Your task to perform on an android device: Open my contact list Image 0: 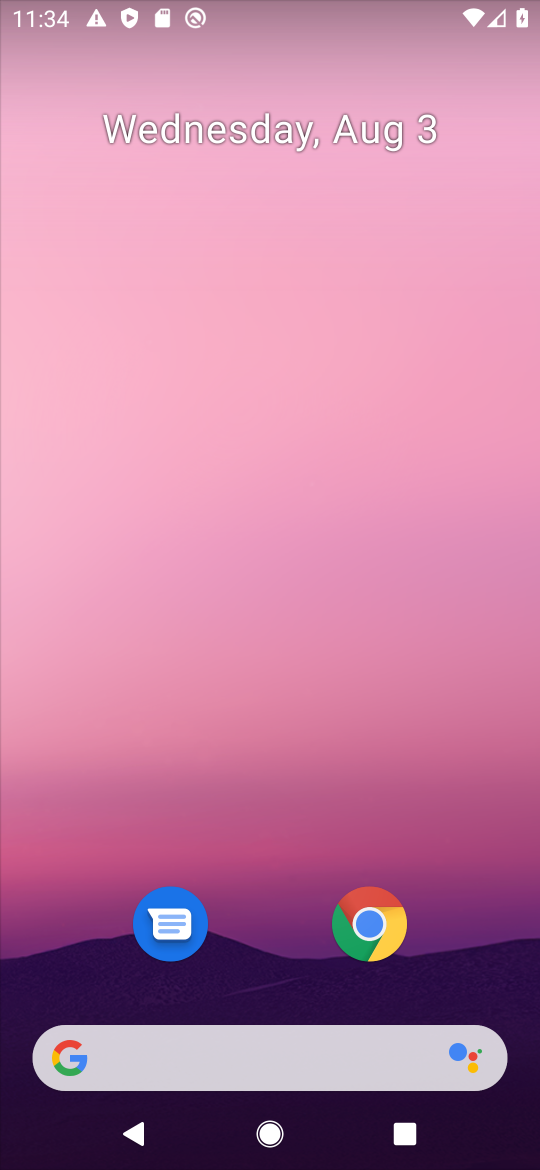
Step 0: drag from (303, 460) to (376, 90)
Your task to perform on an android device: Open my contact list Image 1: 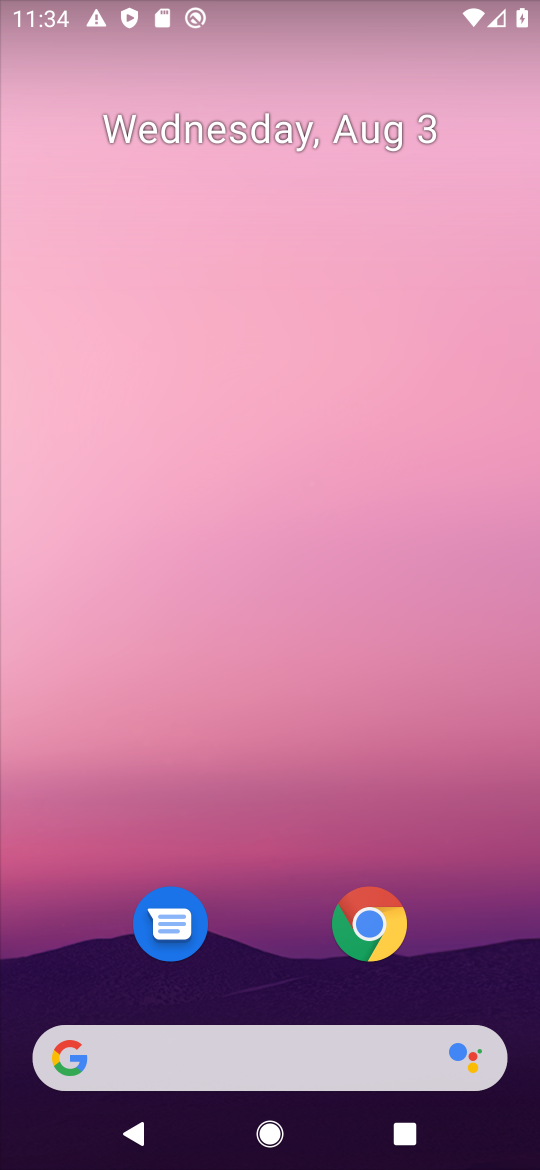
Step 1: drag from (64, 1110) to (367, 140)
Your task to perform on an android device: Open my contact list Image 2: 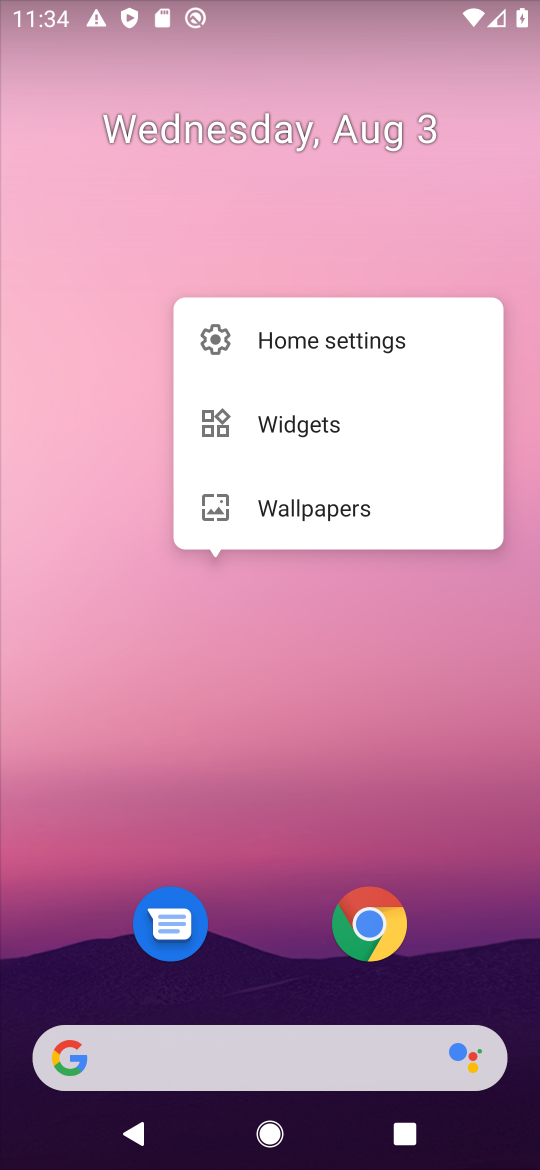
Step 2: drag from (152, 886) to (330, 0)
Your task to perform on an android device: Open my contact list Image 3: 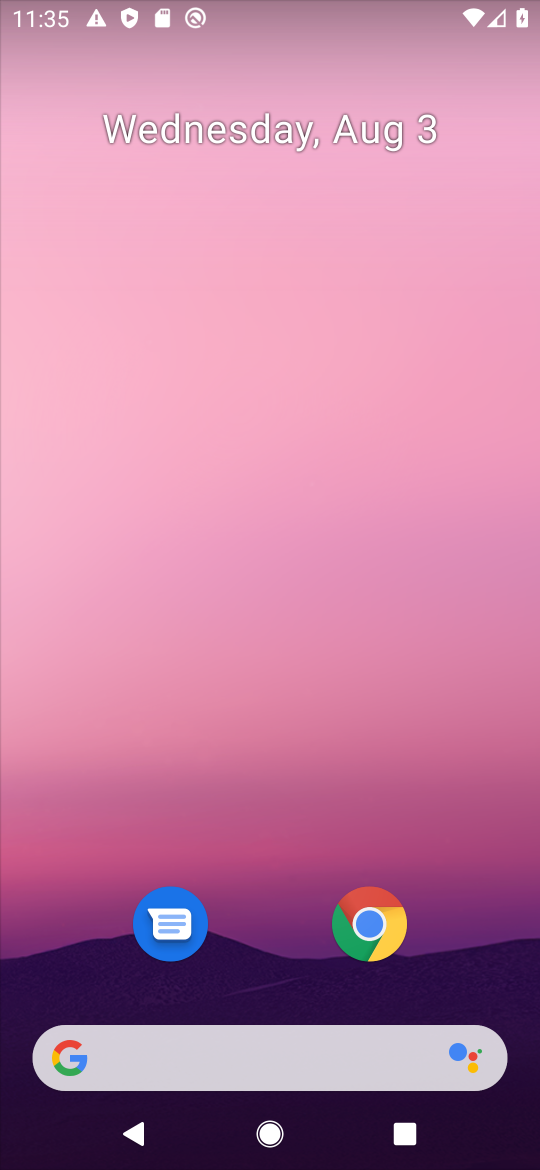
Step 3: drag from (88, 1057) to (400, 113)
Your task to perform on an android device: Open my contact list Image 4: 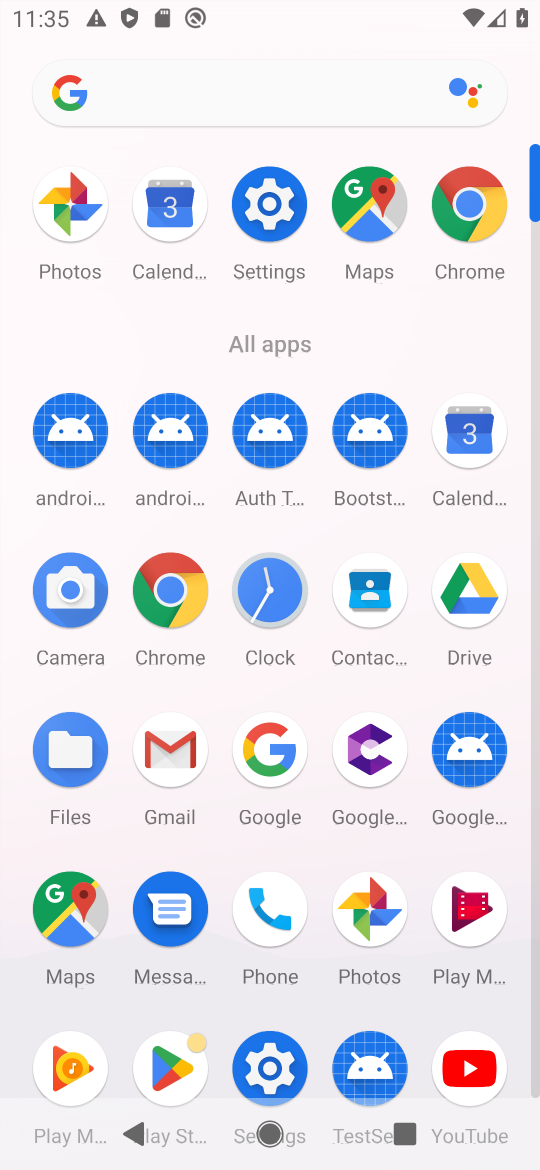
Step 4: click (260, 906)
Your task to perform on an android device: Open my contact list Image 5: 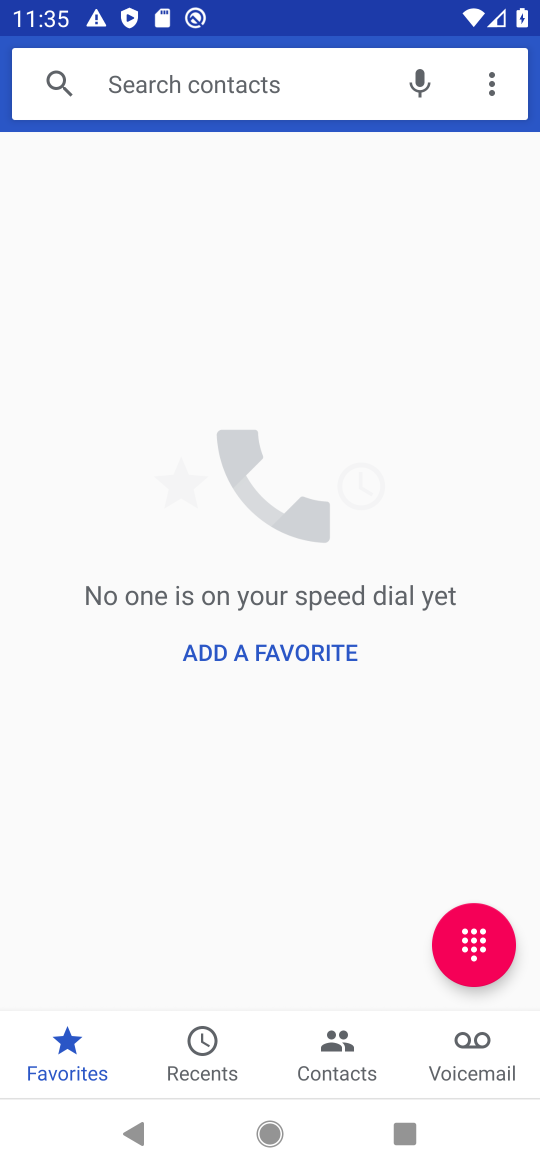
Step 5: click (327, 1070)
Your task to perform on an android device: Open my contact list Image 6: 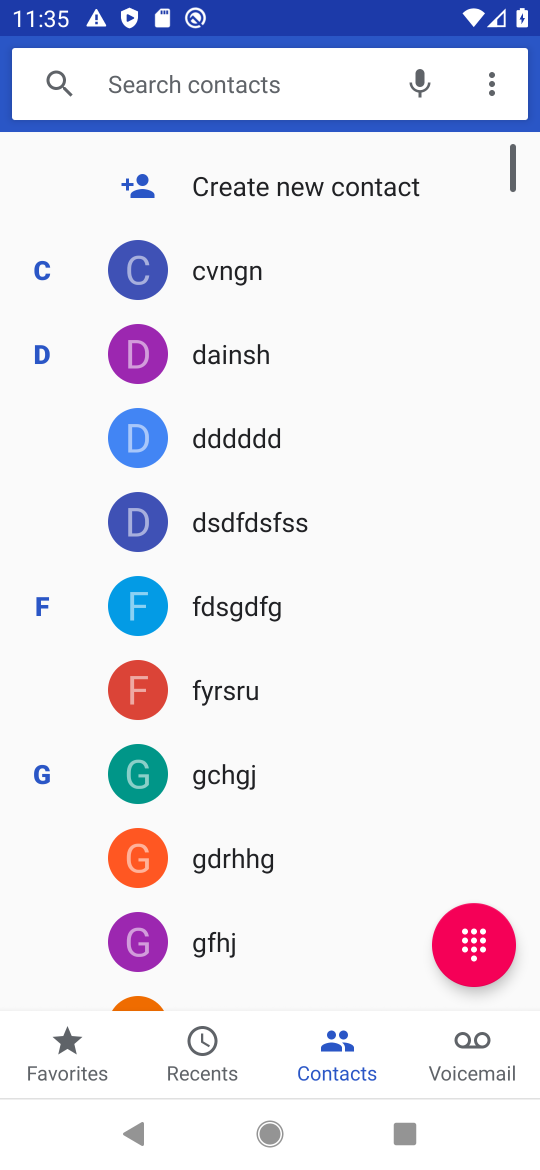
Step 6: click (341, 181)
Your task to perform on an android device: Open my contact list Image 7: 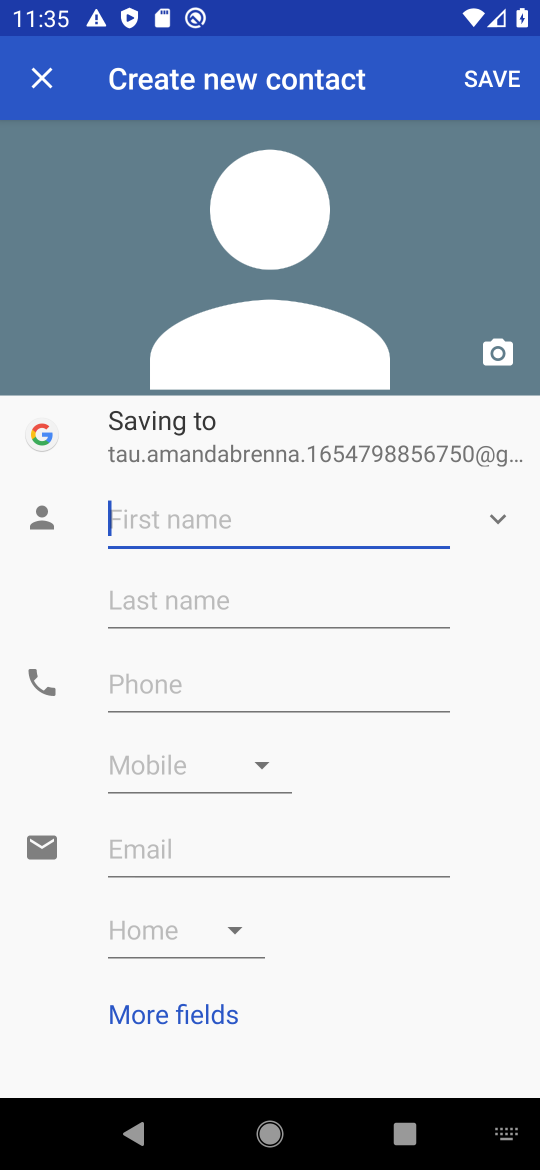
Step 7: type "xdhdfb"
Your task to perform on an android device: Open my contact list Image 8: 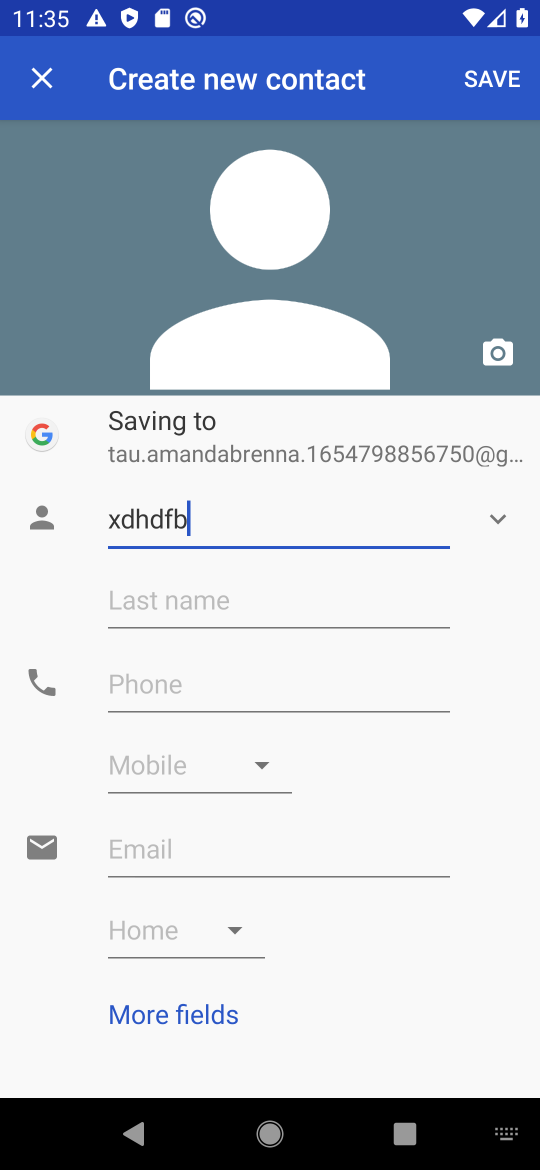
Step 8: type ""
Your task to perform on an android device: Open my contact list Image 9: 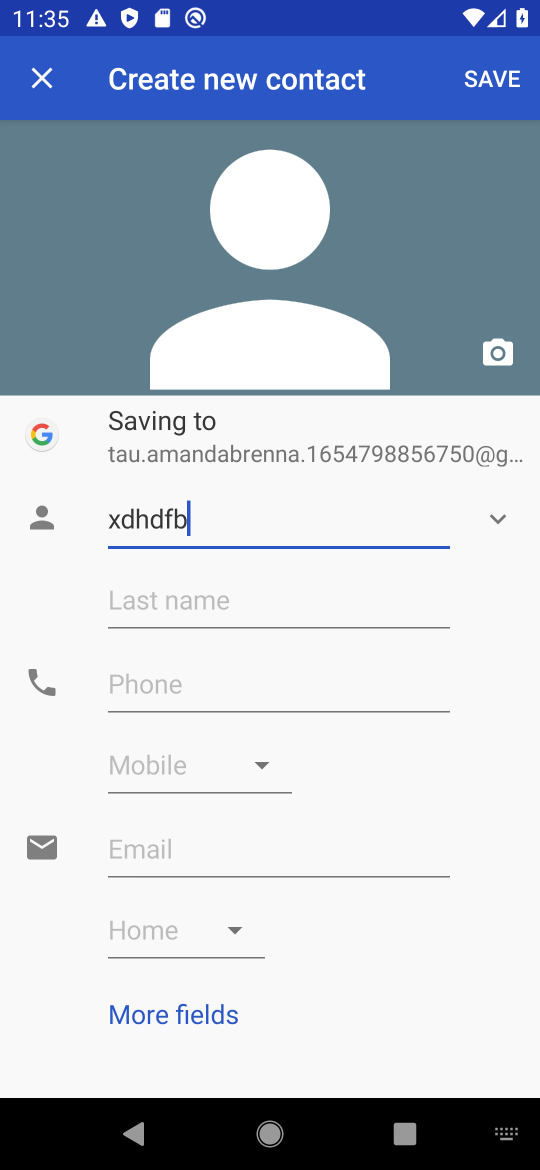
Step 9: click (494, 64)
Your task to perform on an android device: Open my contact list Image 10: 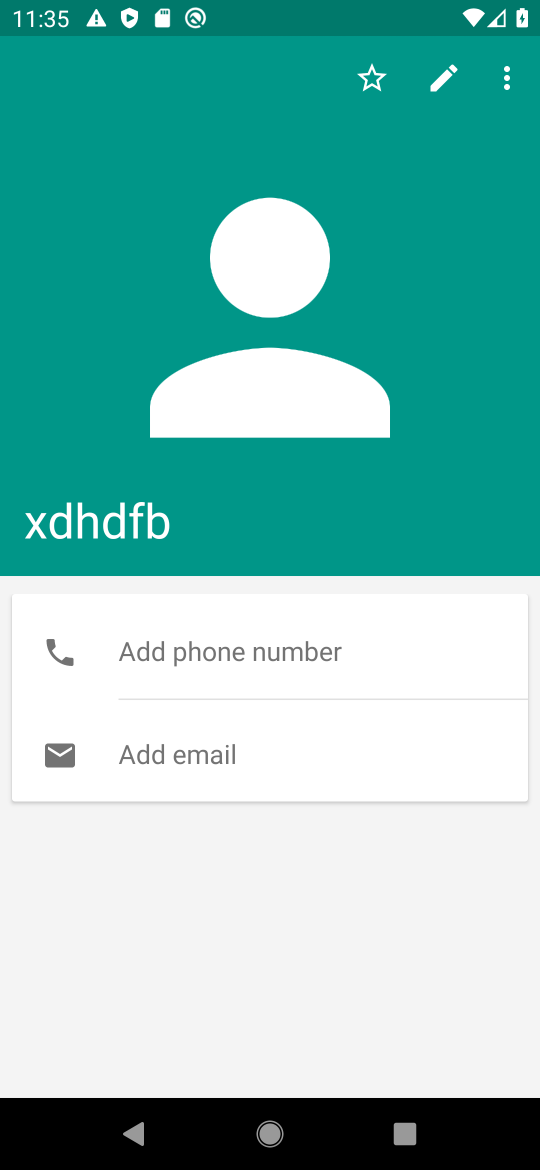
Step 10: task complete